Your task to perform on an android device: Show me productivity apps on the Play Store Image 0: 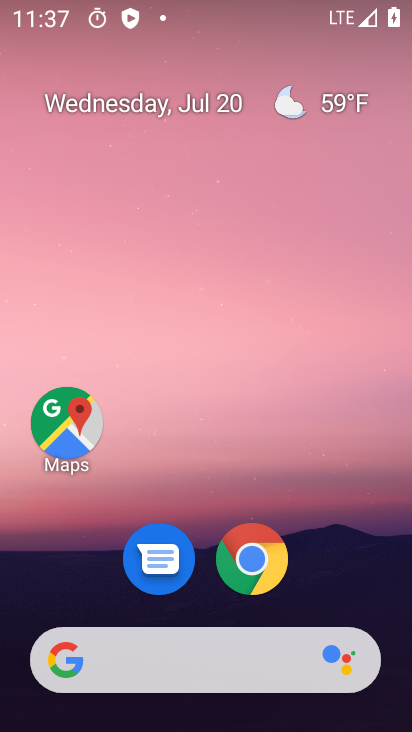
Step 0: drag from (175, 593) to (192, 24)
Your task to perform on an android device: Show me productivity apps on the Play Store Image 1: 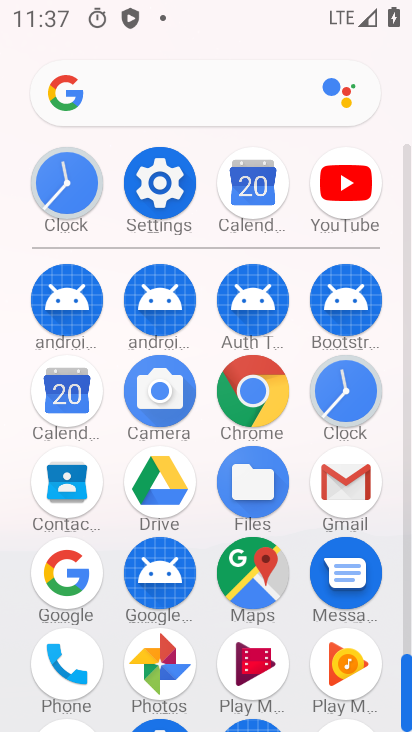
Step 1: drag from (167, 637) to (278, 62)
Your task to perform on an android device: Show me productivity apps on the Play Store Image 2: 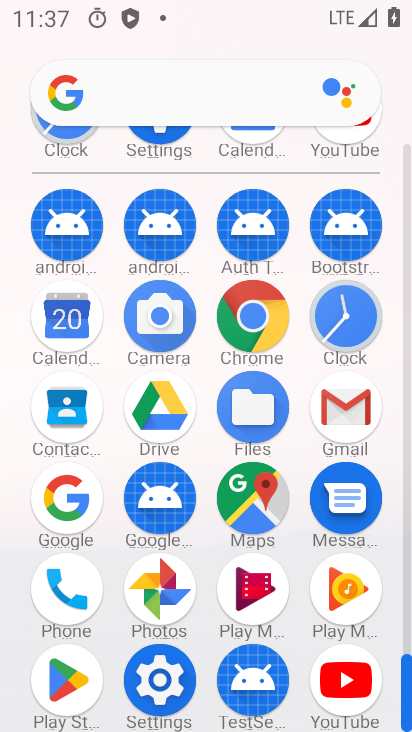
Step 2: click (60, 696)
Your task to perform on an android device: Show me productivity apps on the Play Store Image 3: 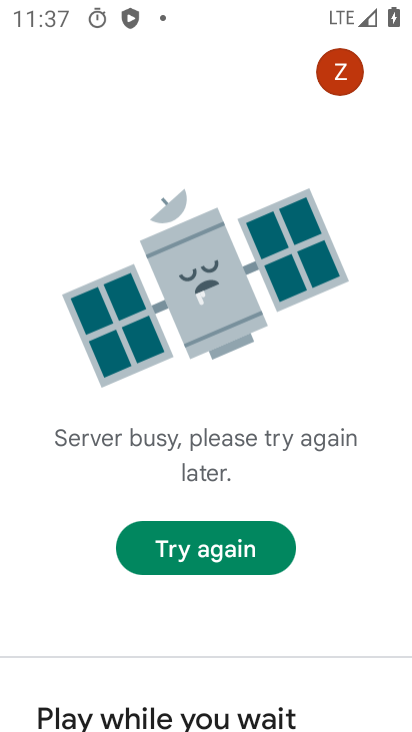
Step 3: task complete